Your task to perform on an android device: turn on airplane mode Image 0: 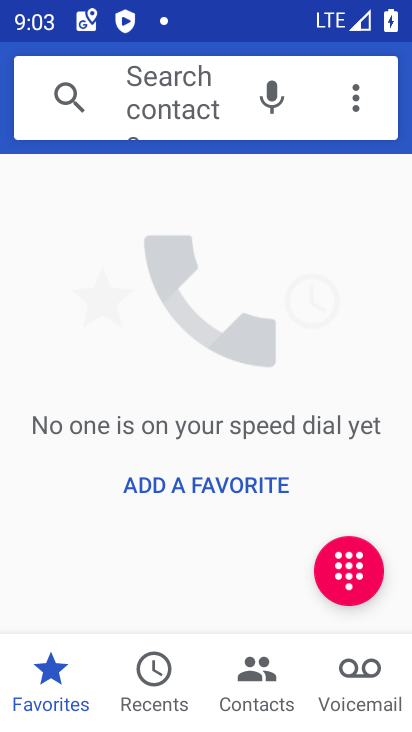
Step 0: press home button
Your task to perform on an android device: turn on airplane mode Image 1: 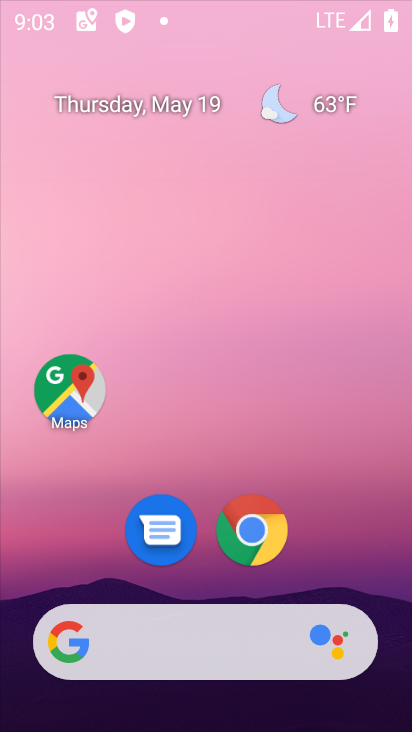
Step 1: drag from (312, 419) to (366, 4)
Your task to perform on an android device: turn on airplane mode Image 2: 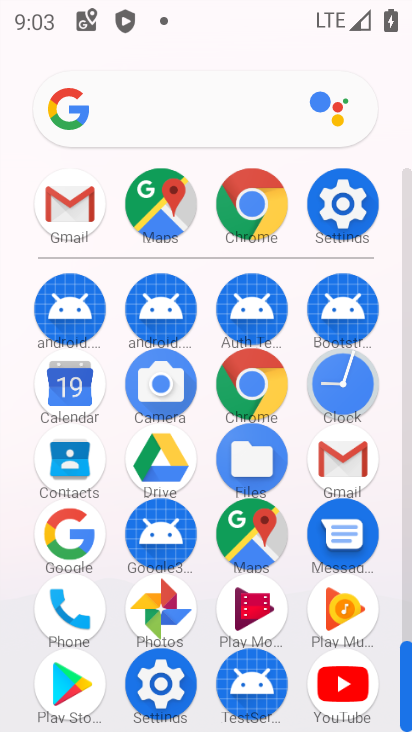
Step 2: click (341, 169)
Your task to perform on an android device: turn on airplane mode Image 3: 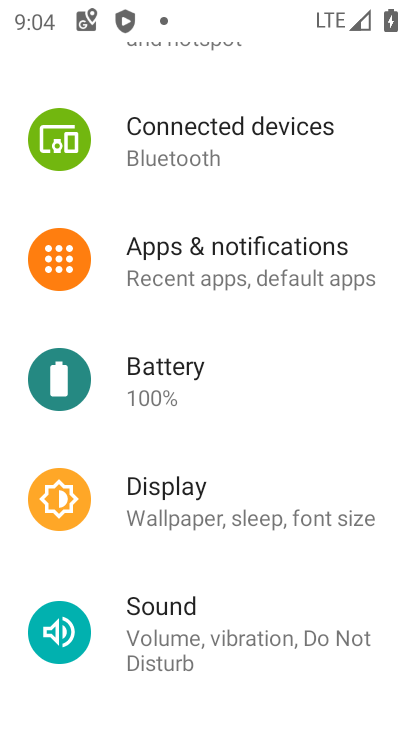
Step 3: drag from (340, 169) to (154, 575)
Your task to perform on an android device: turn on airplane mode Image 4: 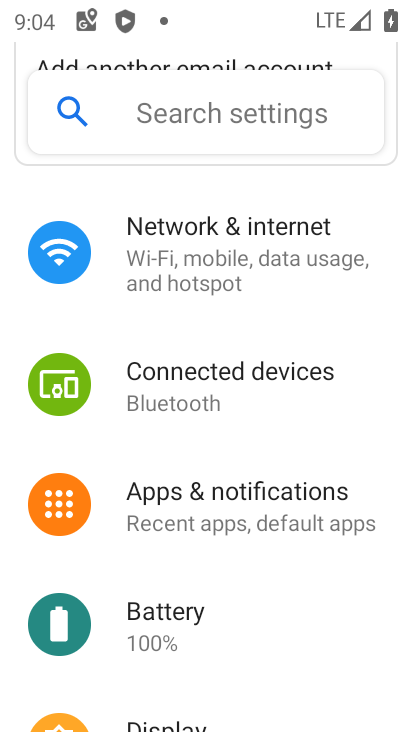
Step 4: click (268, 263)
Your task to perform on an android device: turn on airplane mode Image 5: 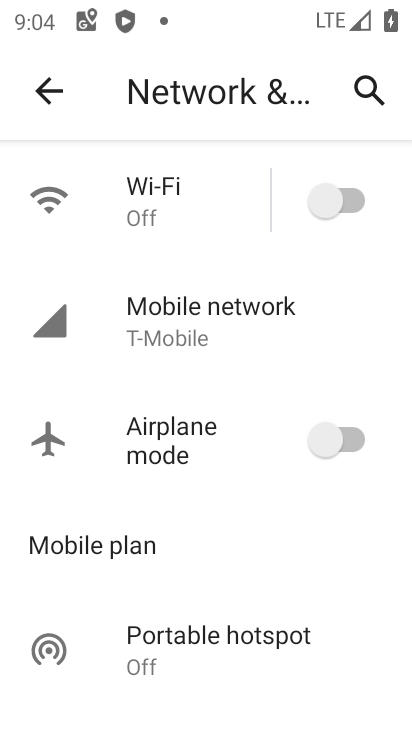
Step 5: click (361, 435)
Your task to perform on an android device: turn on airplane mode Image 6: 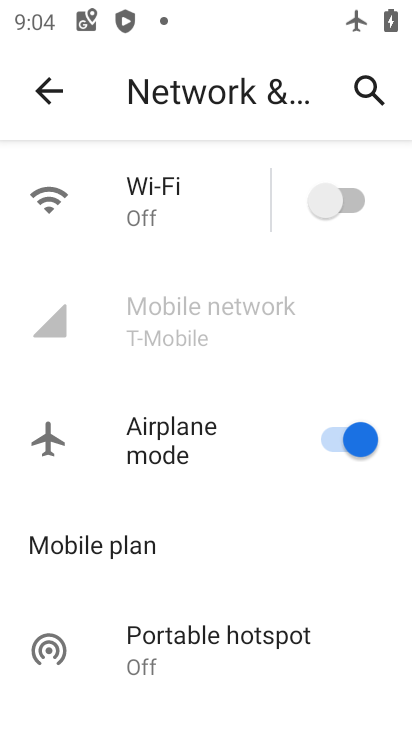
Step 6: task complete